Your task to perform on an android device: toggle location history Image 0: 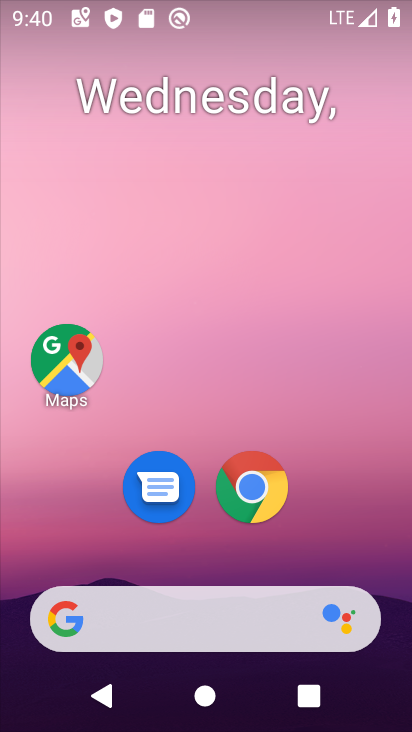
Step 0: click (58, 372)
Your task to perform on an android device: toggle location history Image 1: 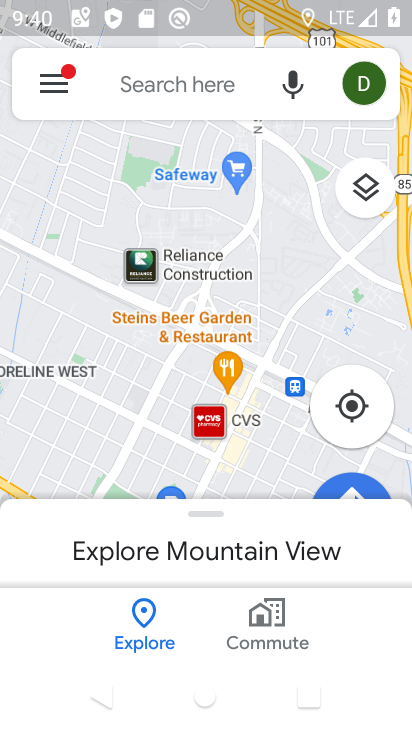
Step 1: click (57, 84)
Your task to perform on an android device: toggle location history Image 2: 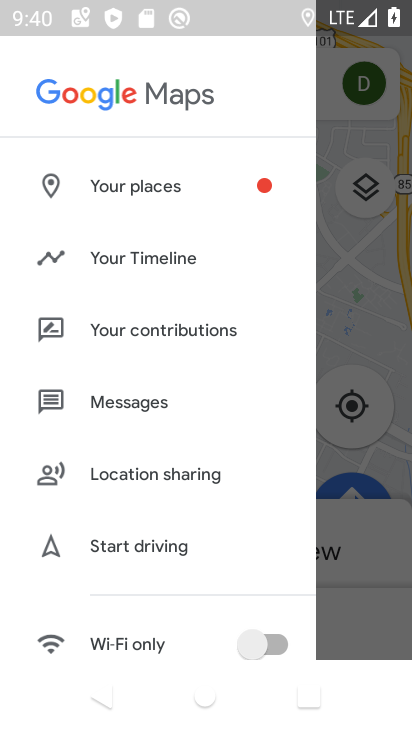
Step 2: click (167, 253)
Your task to perform on an android device: toggle location history Image 3: 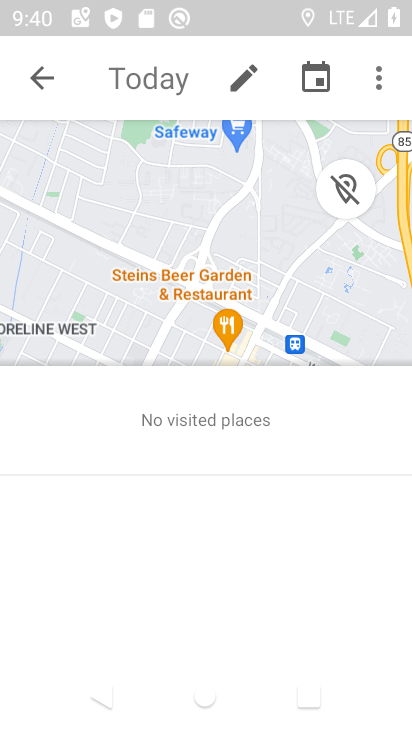
Step 3: click (376, 79)
Your task to perform on an android device: toggle location history Image 4: 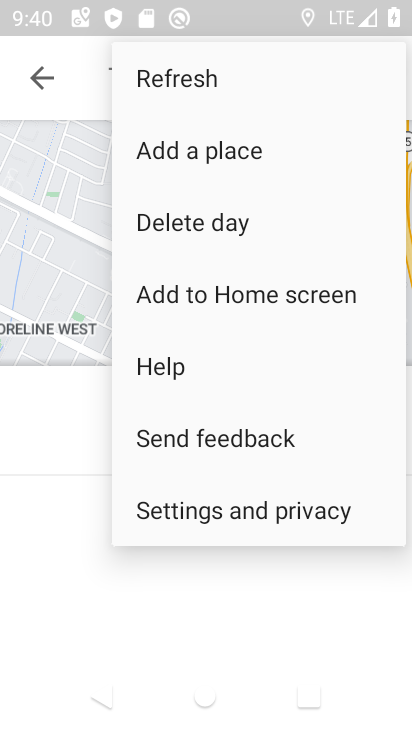
Step 4: click (254, 505)
Your task to perform on an android device: toggle location history Image 5: 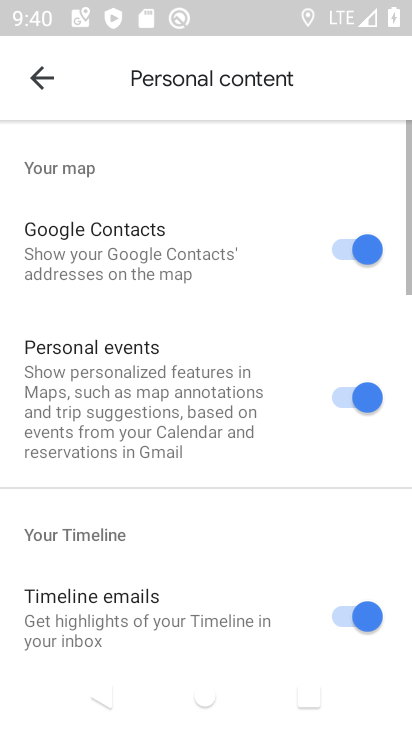
Step 5: drag from (245, 494) to (217, 213)
Your task to perform on an android device: toggle location history Image 6: 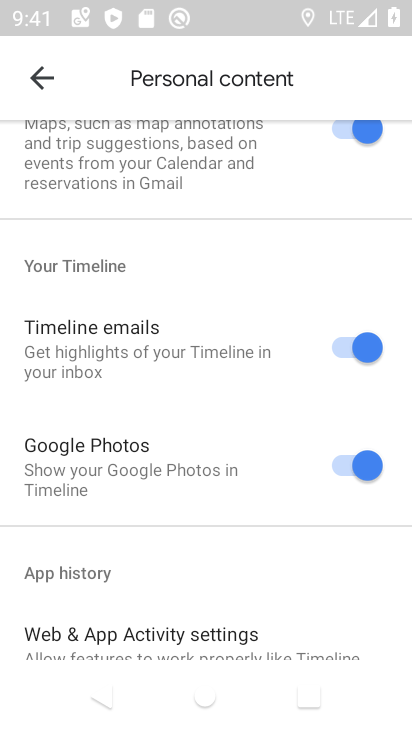
Step 6: drag from (195, 556) to (184, 271)
Your task to perform on an android device: toggle location history Image 7: 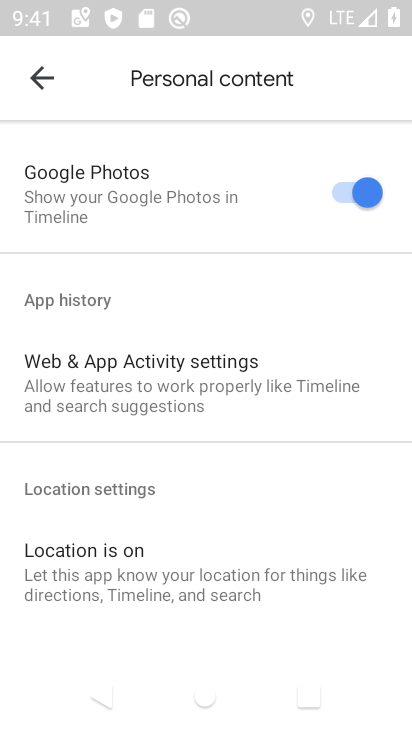
Step 7: drag from (201, 453) to (182, 186)
Your task to perform on an android device: toggle location history Image 8: 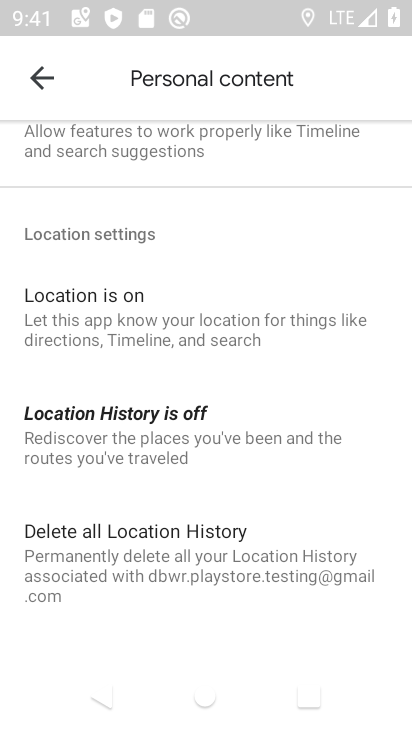
Step 8: click (121, 410)
Your task to perform on an android device: toggle location history Image 9: 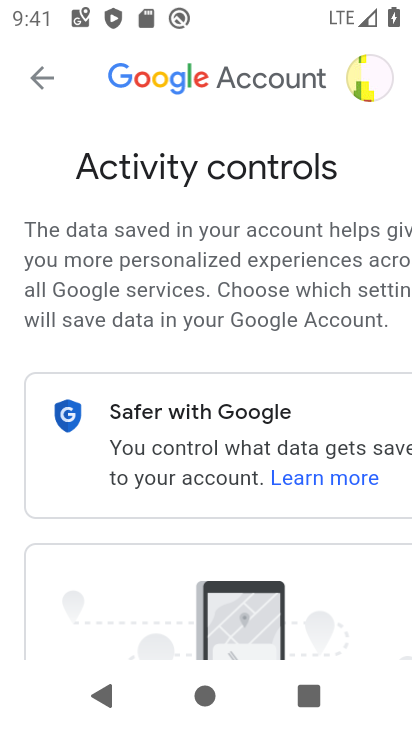
Step 9: drag from (251, 525) to (231, 147)
Your task to perform on an android device: toggle location history Image 10: 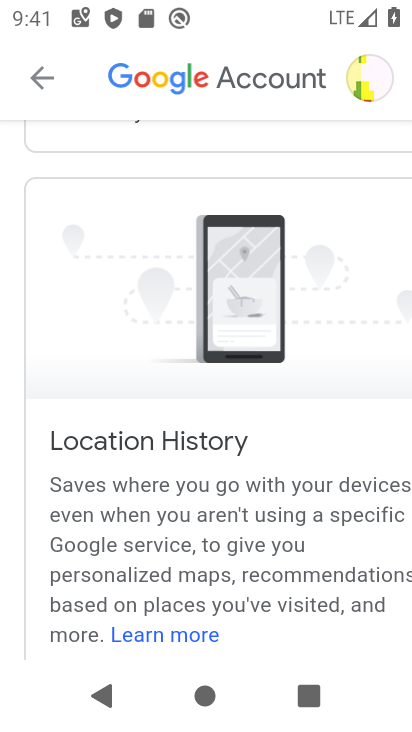
Step 10: drag from (259, 525) to (222, 127)
Your task to perform on an android device: toggle location history Image 11: 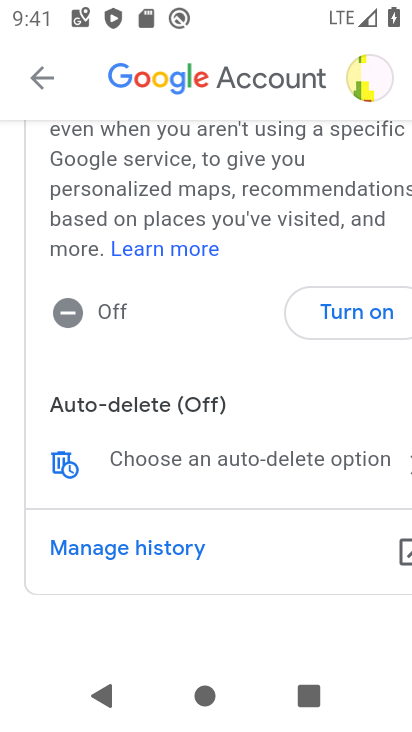
Step 11: click (338, 311)
Your task to perform on an android device: toggle location history Image 12: 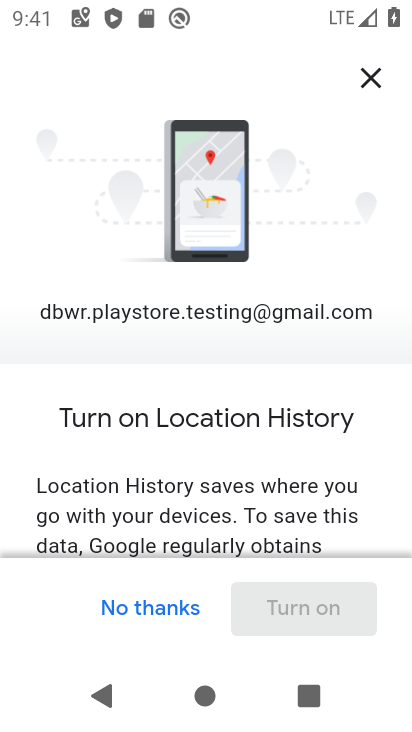
Step 12: drag from (233, 502) to (189, 250)
Your task to perform on an android device: toggle location history Image 13: 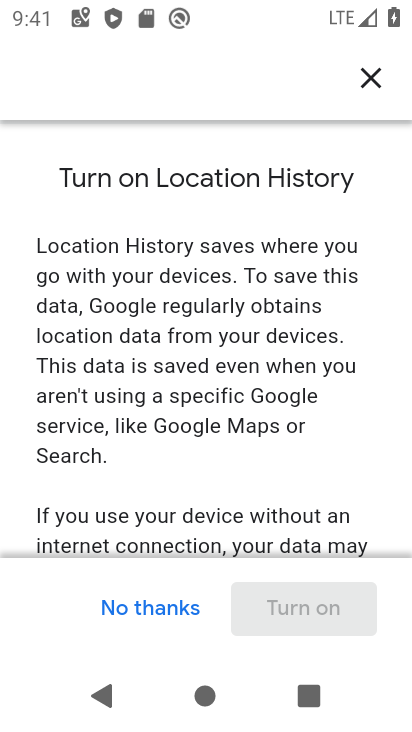
Step 13: drag from (235, 501) to (220, 195)
Your task to perform on an android device: toggle location history Image 14: 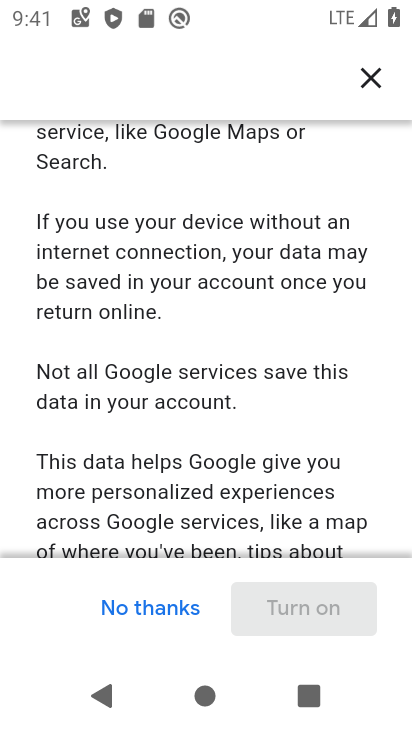
Step 14: drag from (262, 404) to (218, 129)
Your task to perform on an android device: toggle location history Image 15: 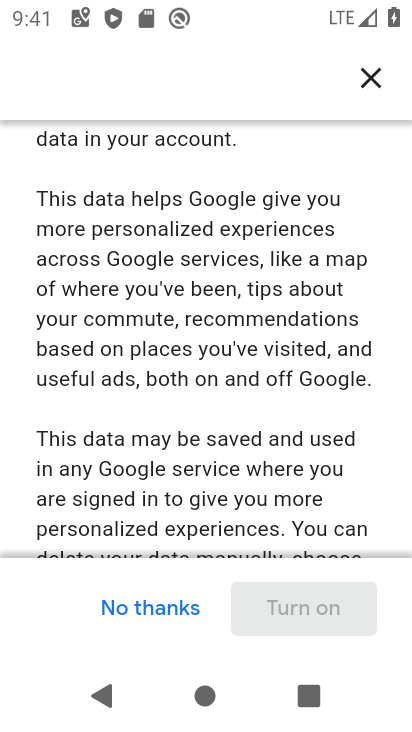
Step 15: drag from (241, 467) to (200, 143)
Your task to perform on an android device: toggle location history Image 16: 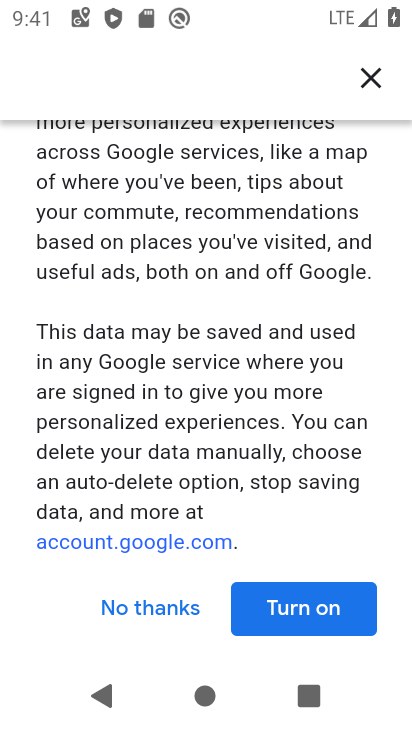
Step 16: click (286, 613)
Your task to perform on an android device: toggle location history Image 17: 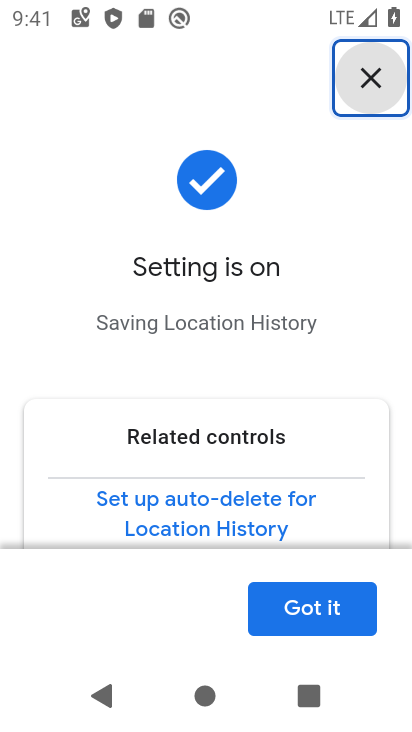
Step 17: click (291, 607)
Your task to perform on an android device: toggle location history Image 18: 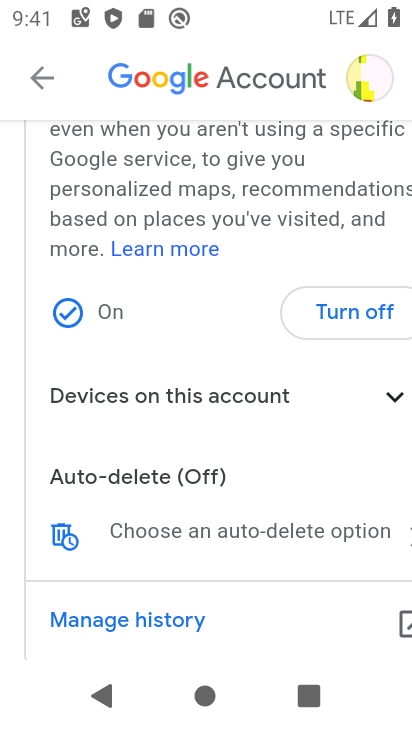
Step 18: task complete